Your task to perform on an android device: turn off javascript in the chrome app Image 0: 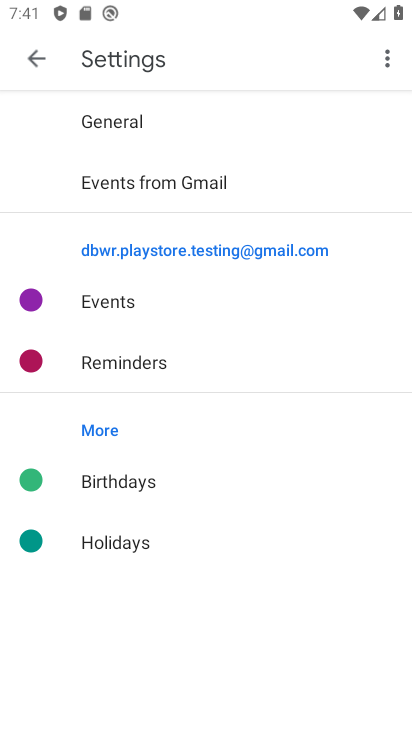
Step 0: press home button
Your task to perform on an android device: turn off javascript in the chrome app Image 1: 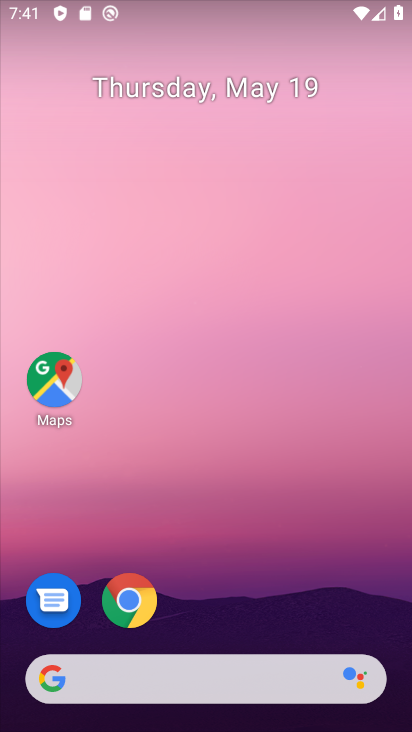
Step 1: drag from (379, 633) to (376, 165)
Your task to perform on an android device: turn off javascript in the chrome app Image 2: 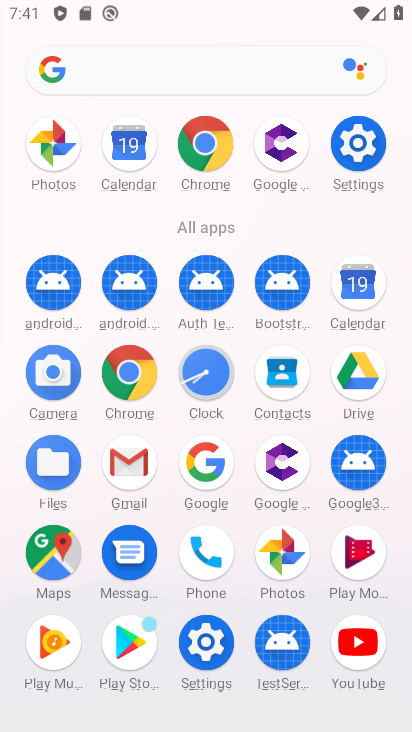
Step 2: click (206, 178)
Your task to perform on an android device: turn off javascript in the chrome app Image 3: 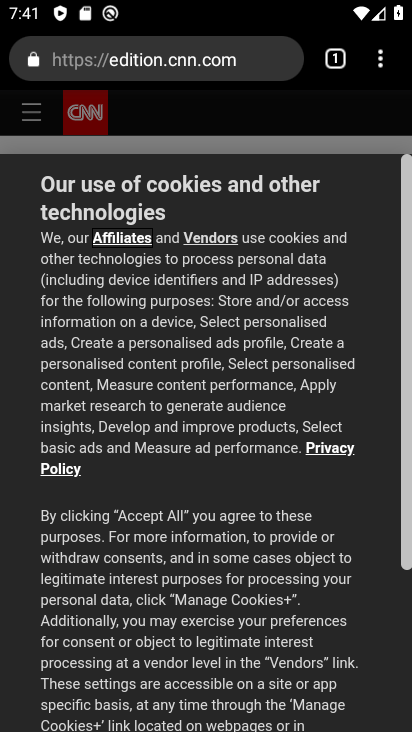
Step 3: click (377, 70)
Your task to perform on an android device: turn off javascript in the chrome app Image 4: 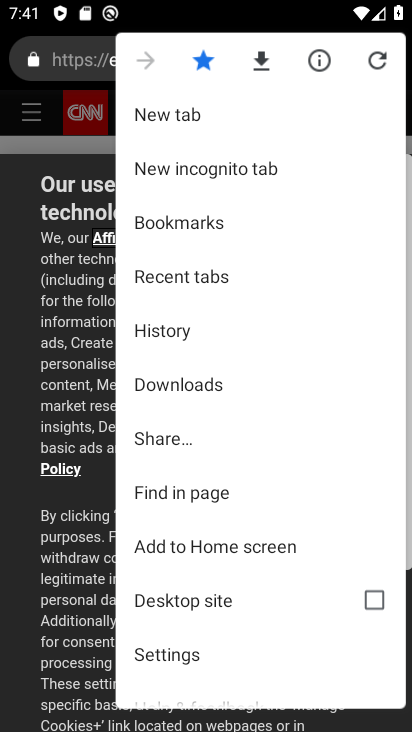
Step 4: drag from (297, 591) to (309, 445)
Your task to perform on an android device: turn off javascript in the chrome app Image 5: 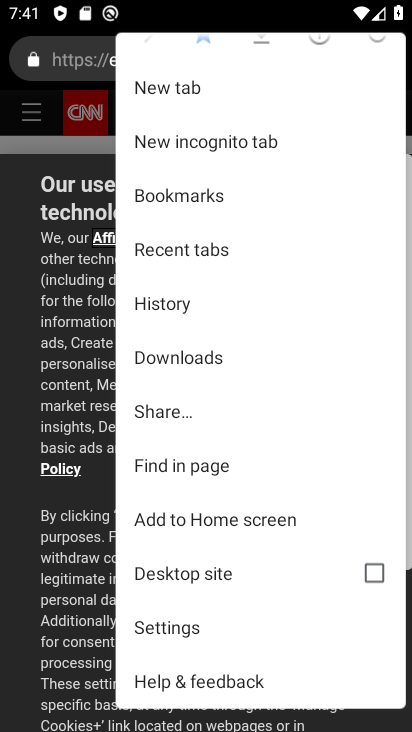
Step 5: click (184, 634)
Your task to perform on an android device: turn off javascript in the chrome app Image 6: 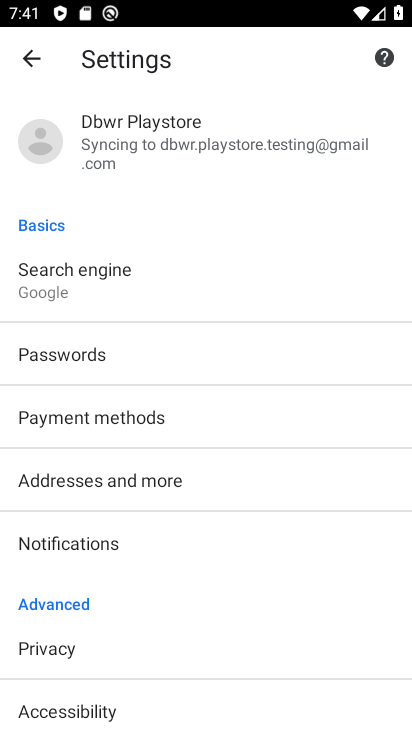
Step 6: drag from (294, 632) to (298, 546)
Your task to perform on an android device: turn off javascript in the chrome app Image 7: 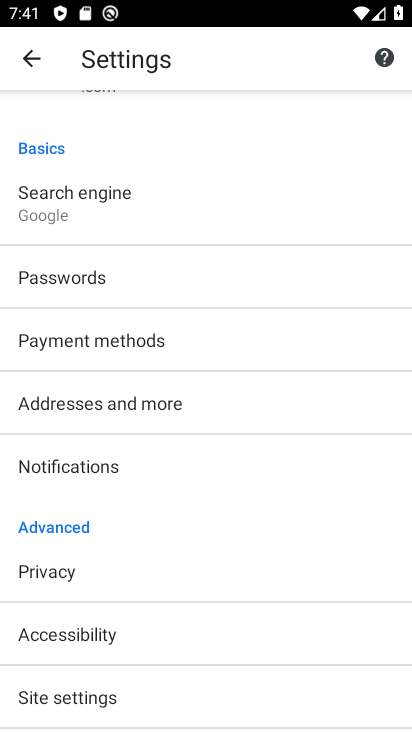
Step 7: drag from (276, 632) to (286, 533)
Your task to perform on an android device: turn off javascript in the chrome app Image 8: 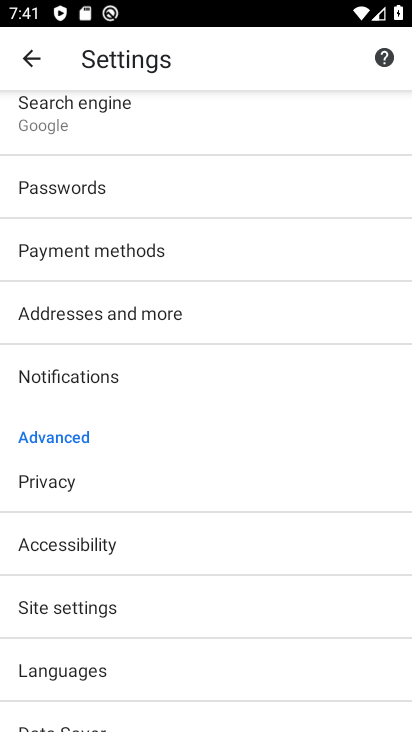
Step 8: drag from (264, 673) to (262, 577)
Your task to perform on an android device: turn off javascript in the chrome app Image 9: 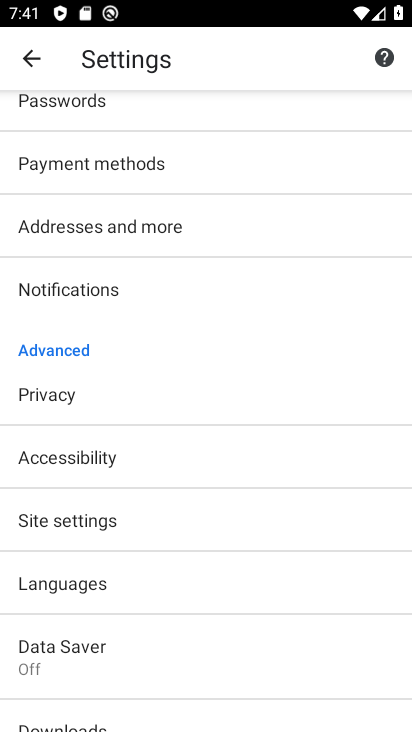
Step 9: drag from (271, 660) to (270, 593)
Your task to perform on an android device: turn off javascript in the chrome app Image 10: 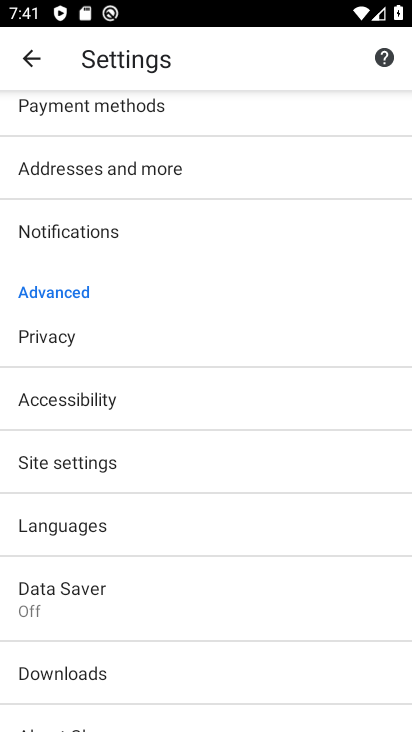
Step 10: drag from (265, 668) to (268, 517)
Your task to perform on an android device: turn off javascript in the chrome app Image 11: 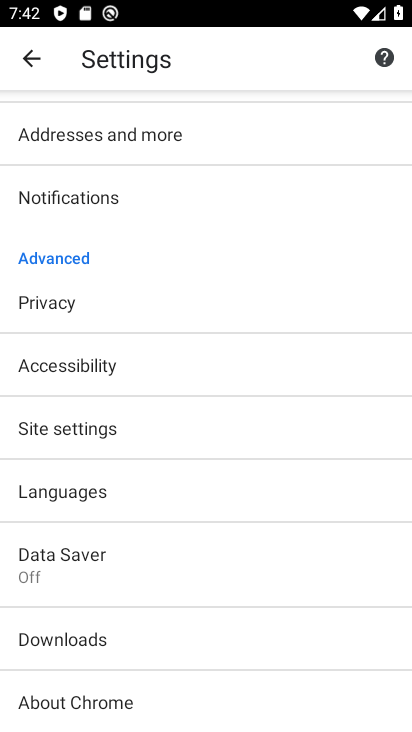
Step 11: drag from (272, 611) to (282, 494)
Your task to perform on an android device: turn off javascript in the chrome app Image 12: 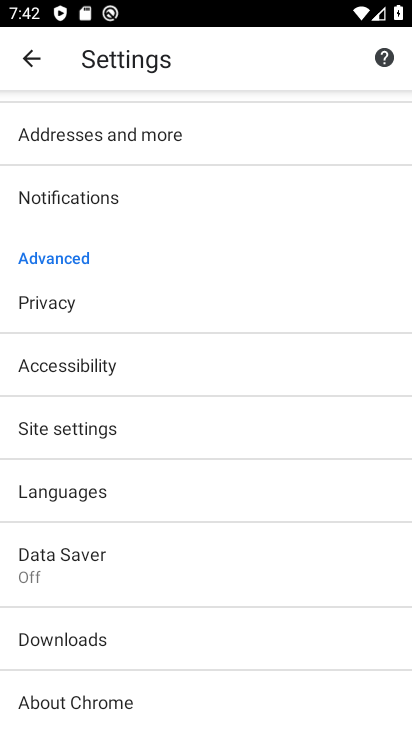
Step 12: click (246, 435)
Your task to perform on an android device: turn off javascript in the chrome app Image 13: 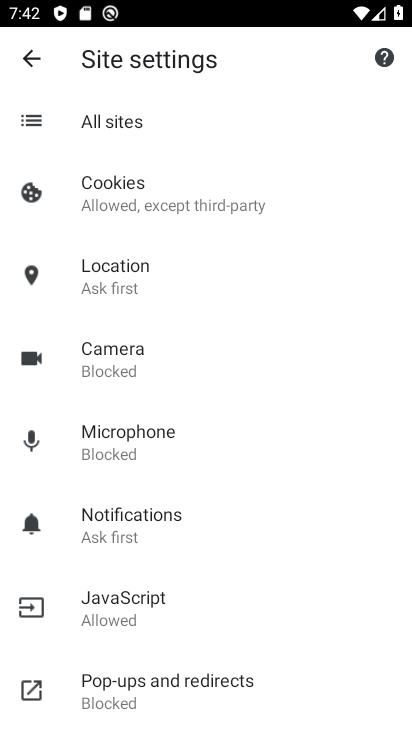
Step 13: drag from (305, 585) to (309, 483)
Your task to perform on an android device: turn off javascript in the chrome app Image 14: 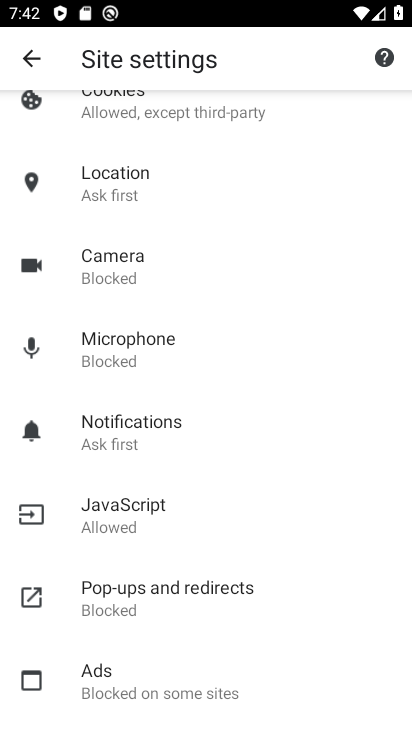
Step 14: drag from (322, 649) to (319, 534)
Your task to perform on an android device: turn off javascript in the chrome app Image 15: 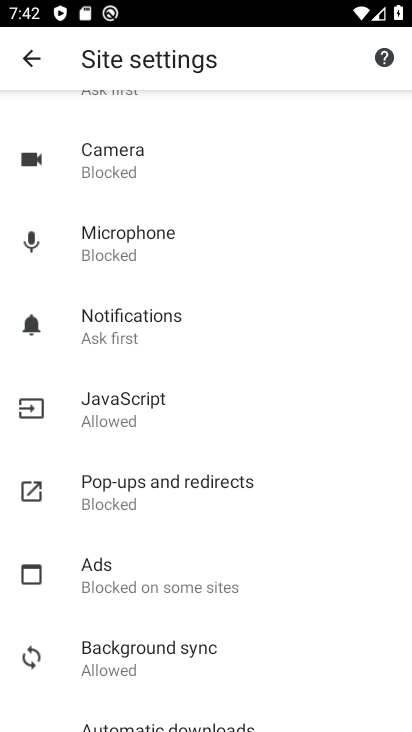
Step 15: drag from (312, 672) to (317, 561)
Your task to perform on an android device: turn off javascript in the chrome app Image 16: 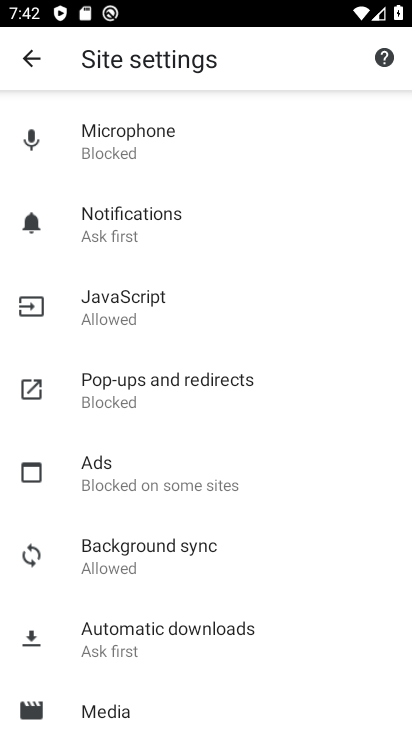
Step 16: drag from (320, 667) to (323, 570)
Your task to perform on an android device: turn off javascript in the chrome app Image 17: 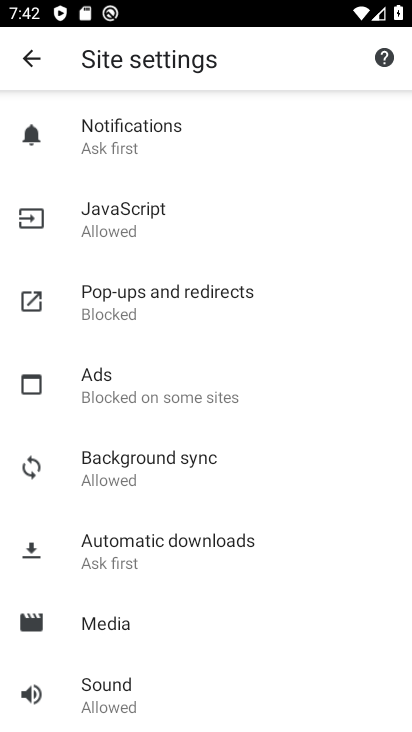
Step 17: drag from (326, 660) to (322, 544)
Your task to perform on an android device: turn off javascript in the chrome app Image 18: 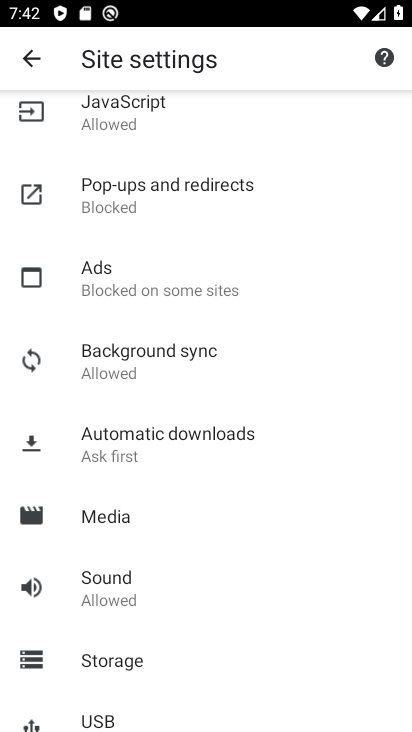
Step 18: drag from (331, 586) to (332, 544)
Your task to perform on an android device: turn off javascript in the chrome app Image 19: 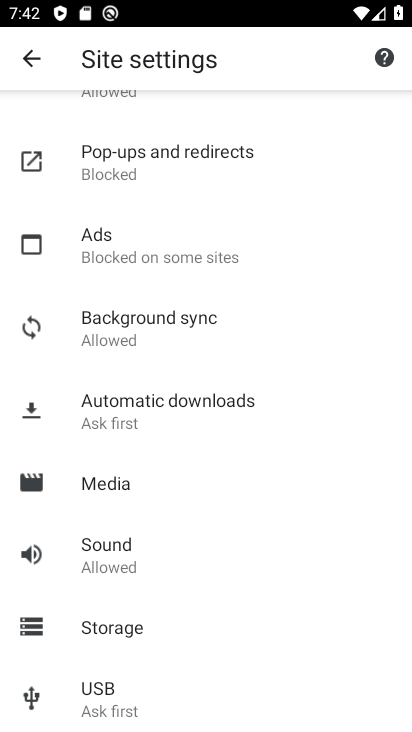
Step 19: drag from (261, 223) to (282, 361)
Your task to perform on an android device: turn off javascript in the chrome app Image 20: 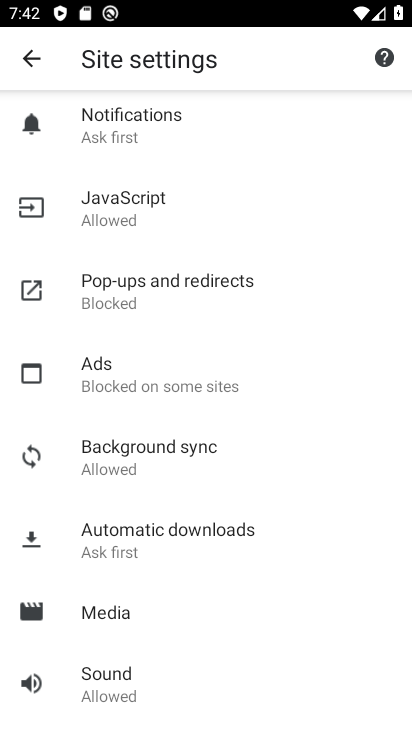
Step 20: click (157, 220)
Your task to perform on an android device: turn off javascript in the chrome app Image 21: 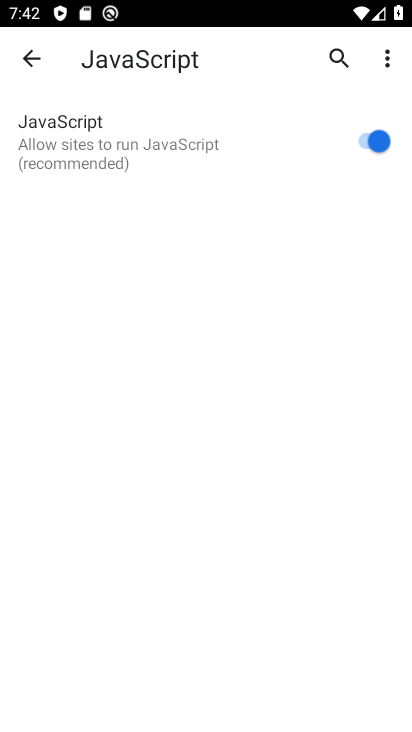
Step 21: click (368, 138)
Your task to perform on an android device: turn off javascript in the chrome app Image 22: 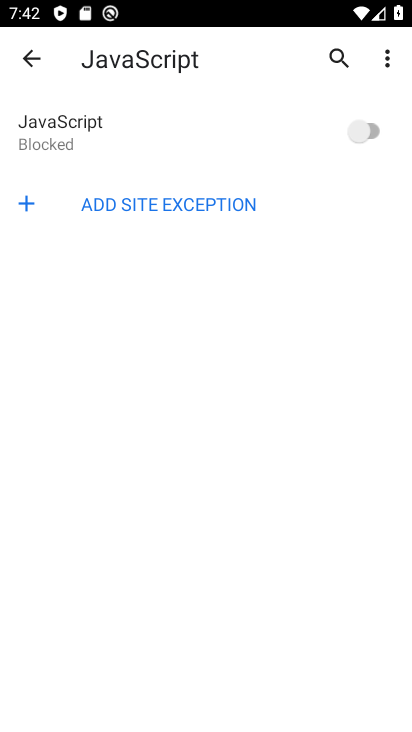
Step 22: task complete